Your task to perform on an android device: Go to wifi settings Image 0: 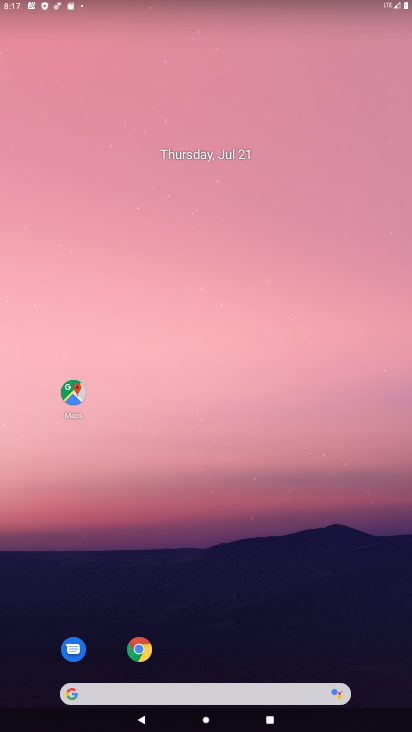
Step 0: click (262, 63)
Your task to perform on an android device: Go to wifi settings Image 1: 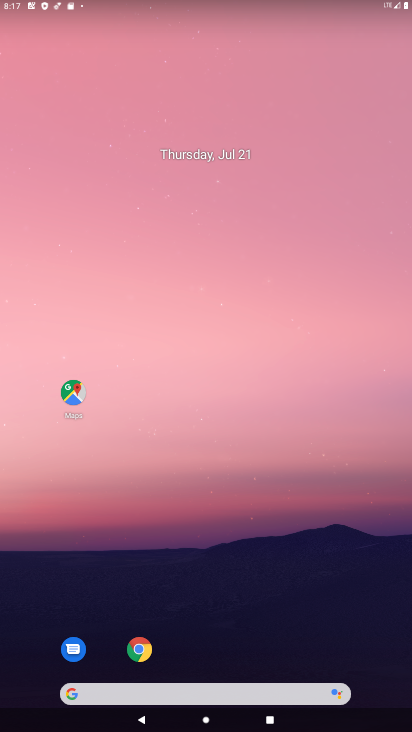
Step 1: drag from (166, 652) to (210, 6)
Your task to perform on an android device: Go to wifi settings Image 2: 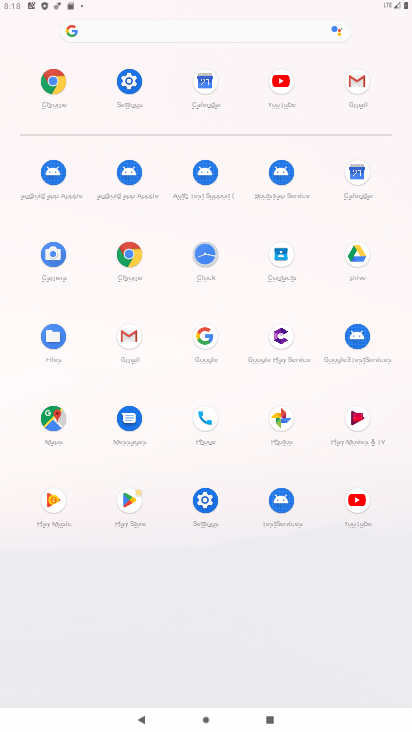
Step 2: click (131, 70)
Your task to perform on an android device: Go to wifi settings Image 3: 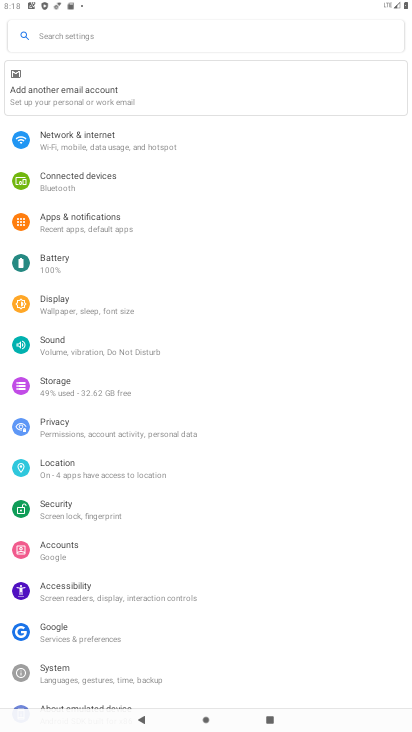
Step 3: click (129, 144)
Your task to perform on an android device: Go to wifi settings Image 4: 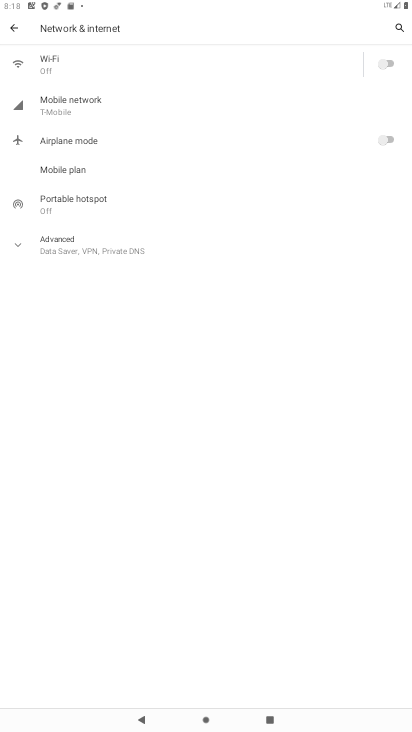
Step 4: click (94, 66)
Your task to perform on an android device: Go to wifi settings Image 5: 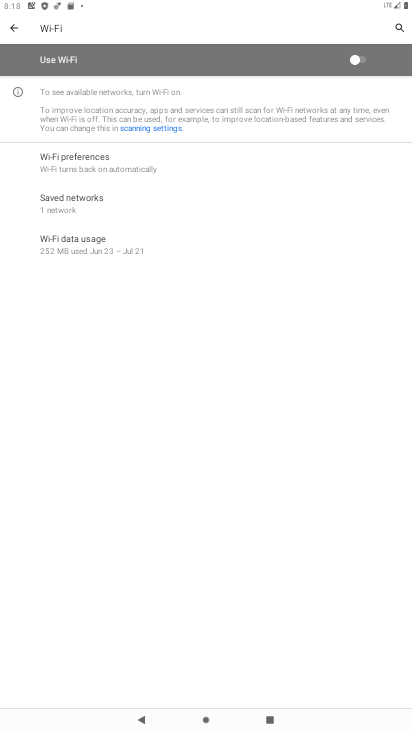
Step 5: task complete